Your task to perform on an android device: Open display settings Image 0: 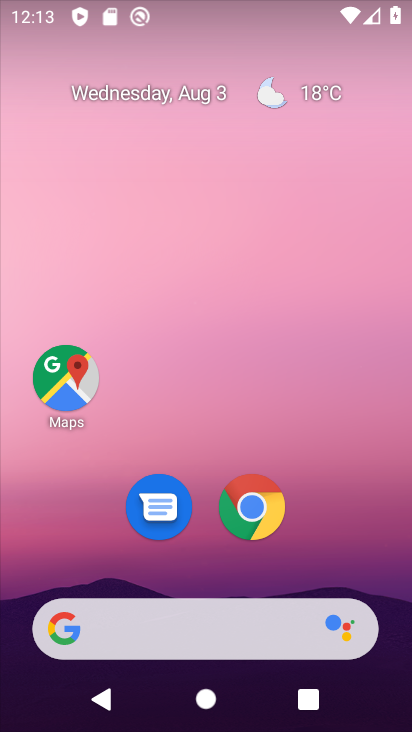
Step 0: drag from (172, 636) to (248, 16)
Your task to perform on an android device: Open display settings Image 1: 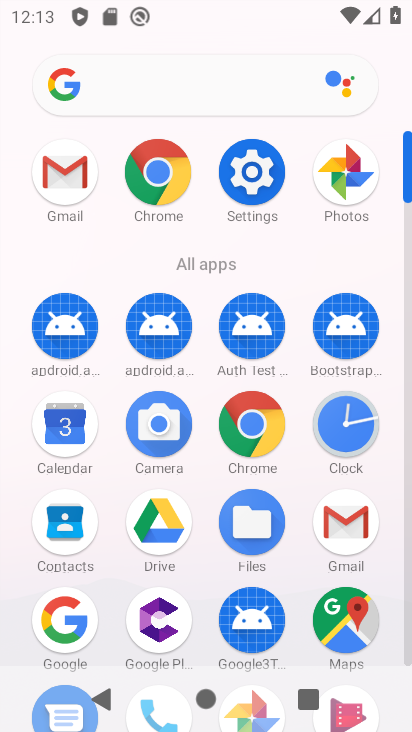
Step 1: click (249, 159)
Your task to perform on an android device: Open display settings Image 2: 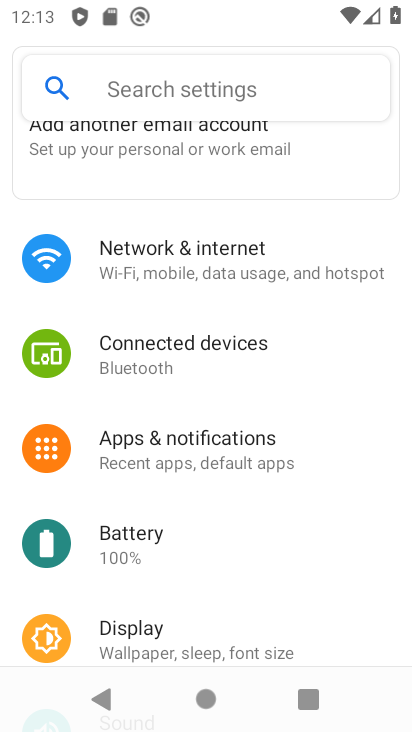
Step 2: click (143, 652)
Your task to perform on an android device: Open display settings Image 3: 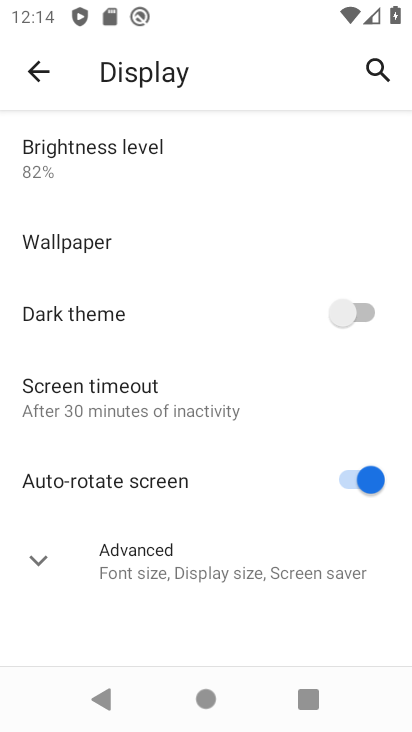
Step 3: task complete